Your task to perform on an android device: What is the recent news? Image 0: 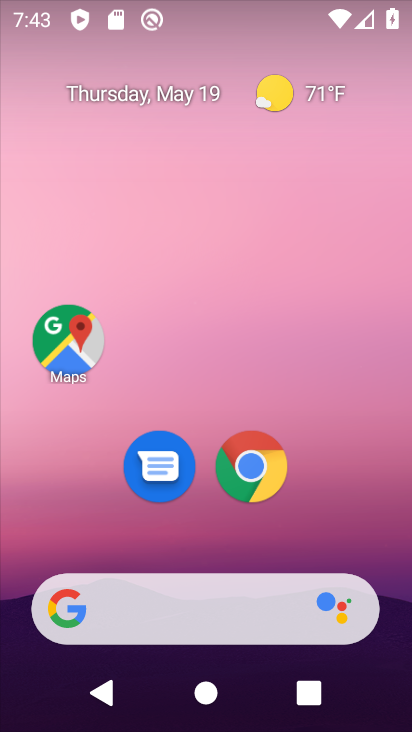
Step 0: drag from (342, 545) to (246, 5)
Your task to perform on an android device: What is the recent news? Image 1: 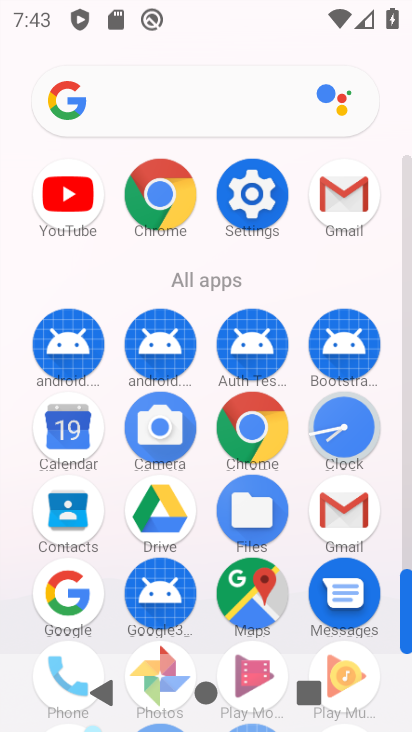
Step 1: click (249, 424)
Your task to perform on an android device: What is the recent news? Image 2: 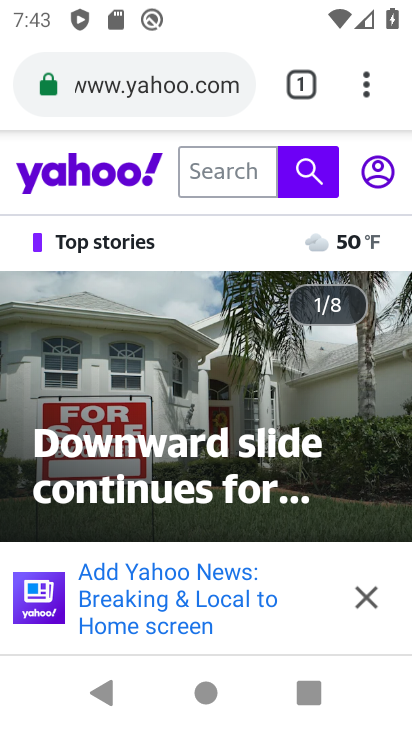
Step 2: click (110, 86)
Your task to perform on an android device: What is the recent news? Image 3: 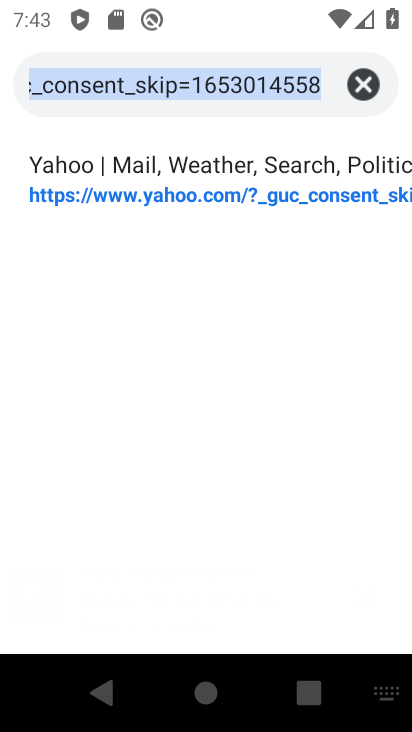
Step 3: click (360, 82)
Your task to perform on an android device: What is the recent news? Image 4: 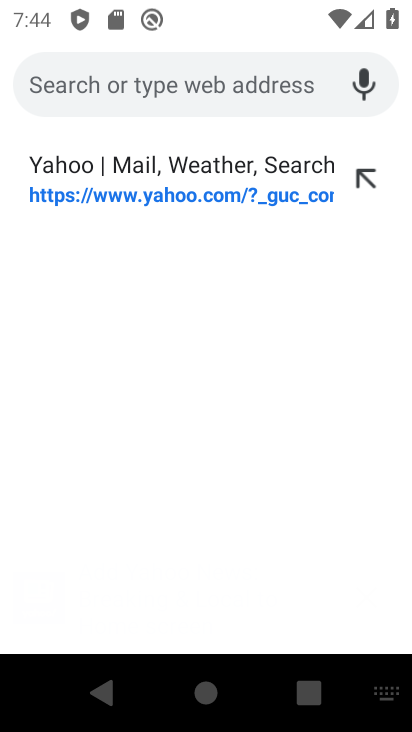
Step 4: type "What is the recent news?"
Your task to perform on an android device: What is the recent news? Image 5: 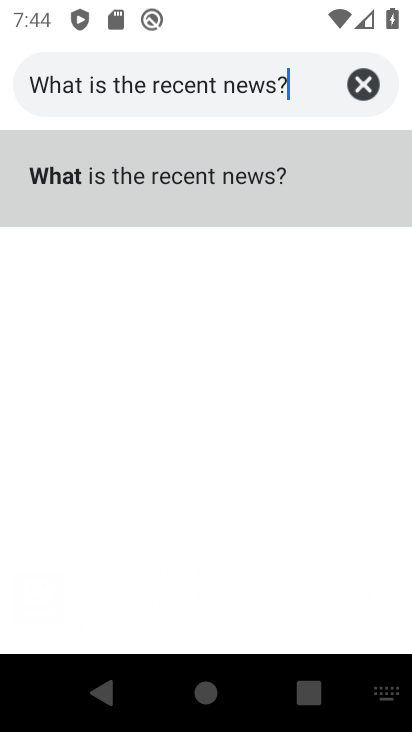
Step 5: type ""
Your task to perform on an android device: What is the recent news? Image 6: 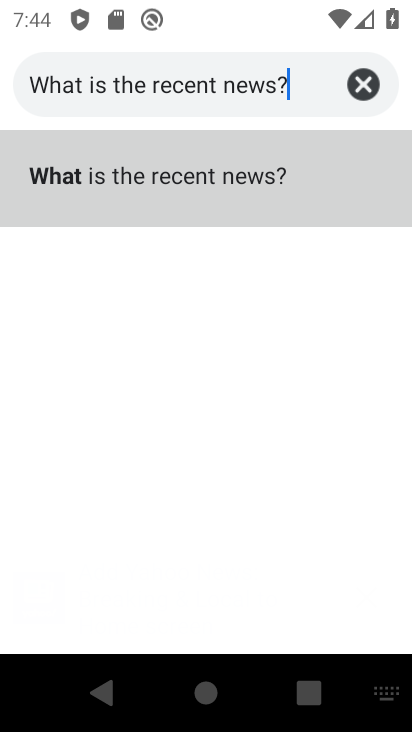
Step 6: click (255, 178)
Your task to perform on an android device: What is the recent news? Image 7: 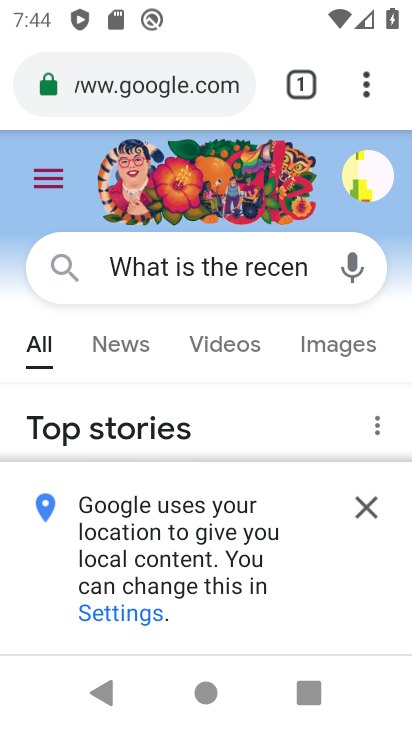
Step 7: click (373, 507)
Your task to perform on an android device: What is the recent news? Image 8: 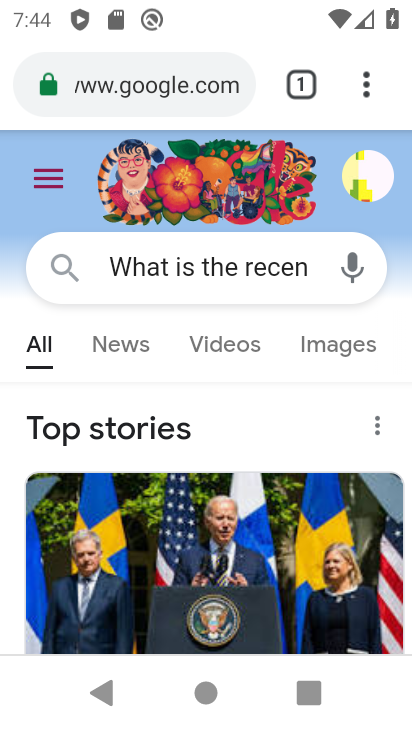
Step 8: task complete